Your task to perform on an android device: Search for rayovac triple a on ebay.com, select the first entry, and add it to the cart. Image 0: 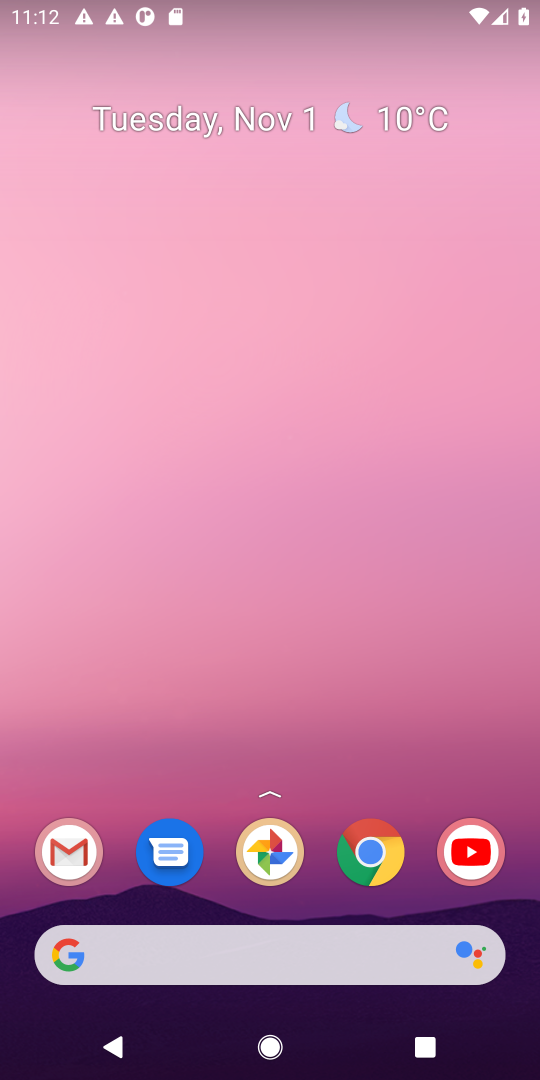
Step 0: press home button
Your task to perform on an android device: Search for rayovac triple a on ebay.com, select the first entry, and add it to the cart. Image 1: 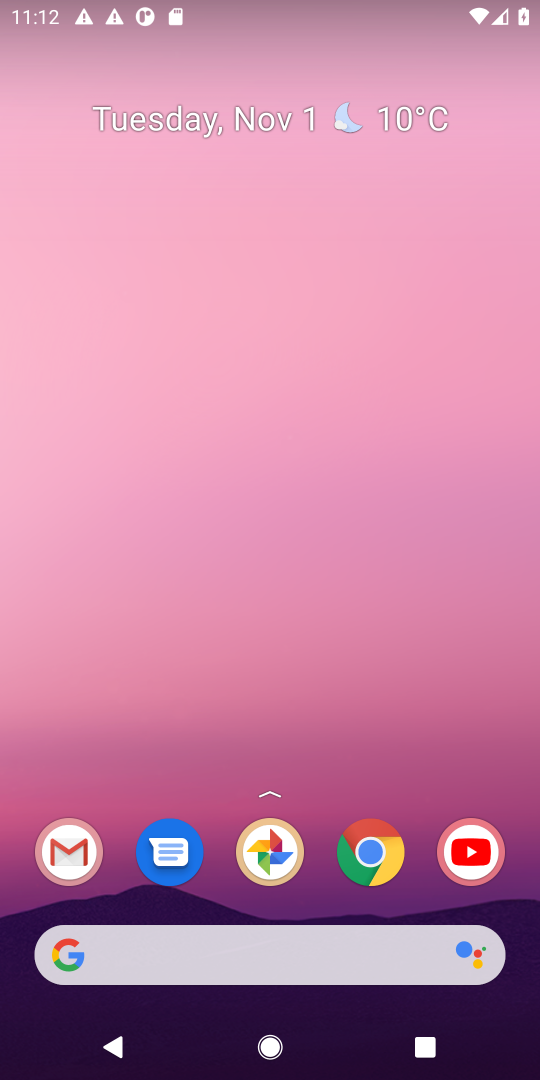
Step 1: click (57, 943)
Your task to perform on an android device: Search for rayovac triple a on ebay.com, select the first entry, and add it to the cart. Image 2: 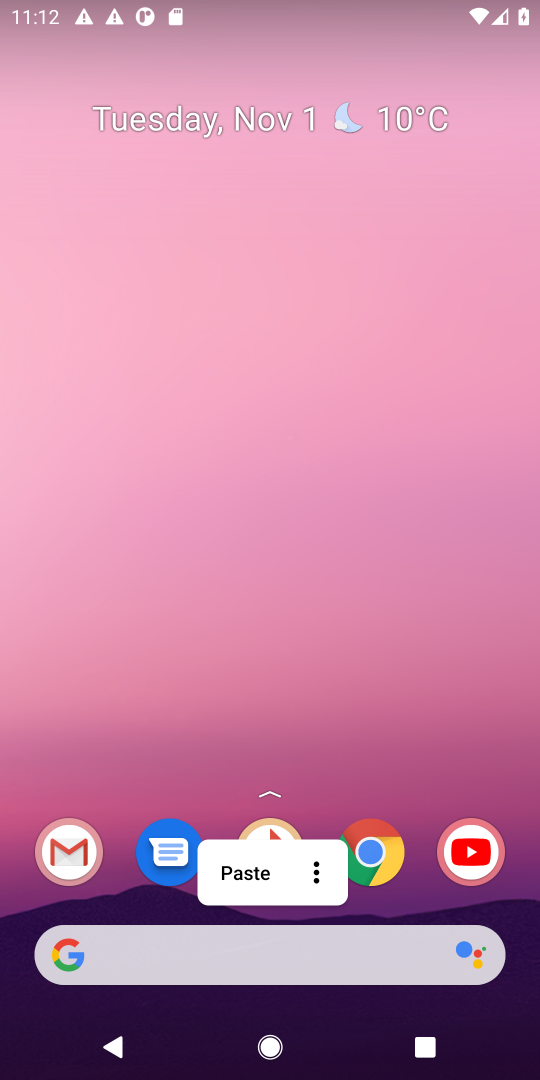
Step 2: click (63, 947)
Your task to perform on an android device: Search for rayovac triple a on ebay.com, select the first entry, and add it to the cart. Image 3: 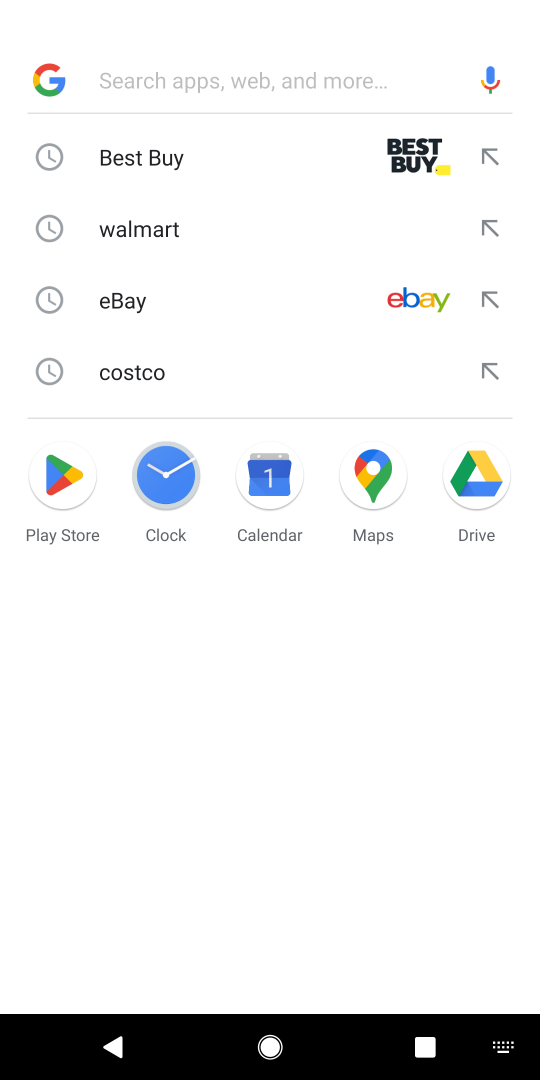
Step 3: click (115, 304)
Your task to perform on an android device: Search for rayovac triple a on ebay.com, select the first entry, and add it to the cart. Image 4: 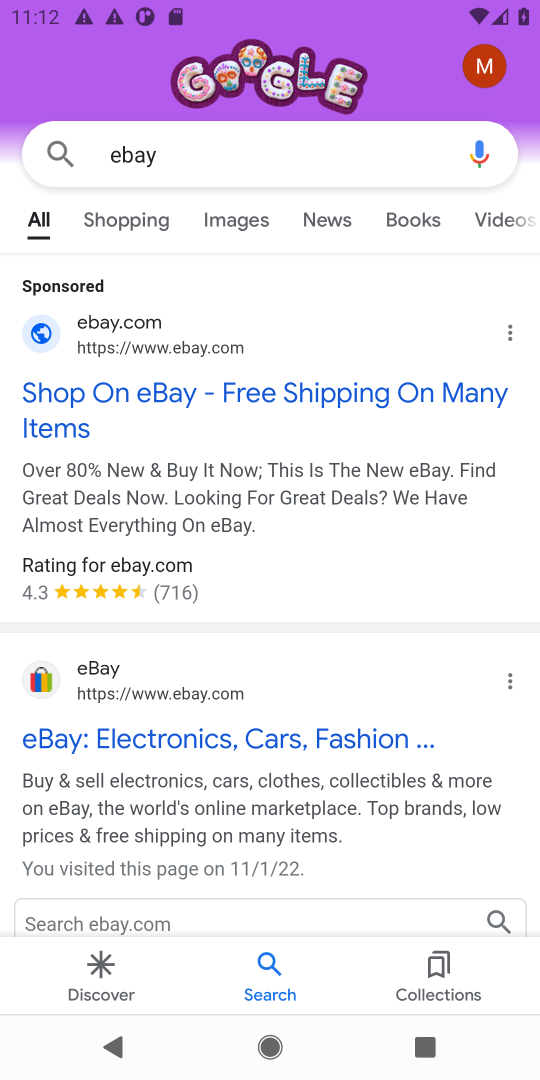
Step 4: click (154, 733)
Your task to perform on an android device: Search for rayovac triple a on ebay.com, select the first entry, and add it to the cart. Image 5: 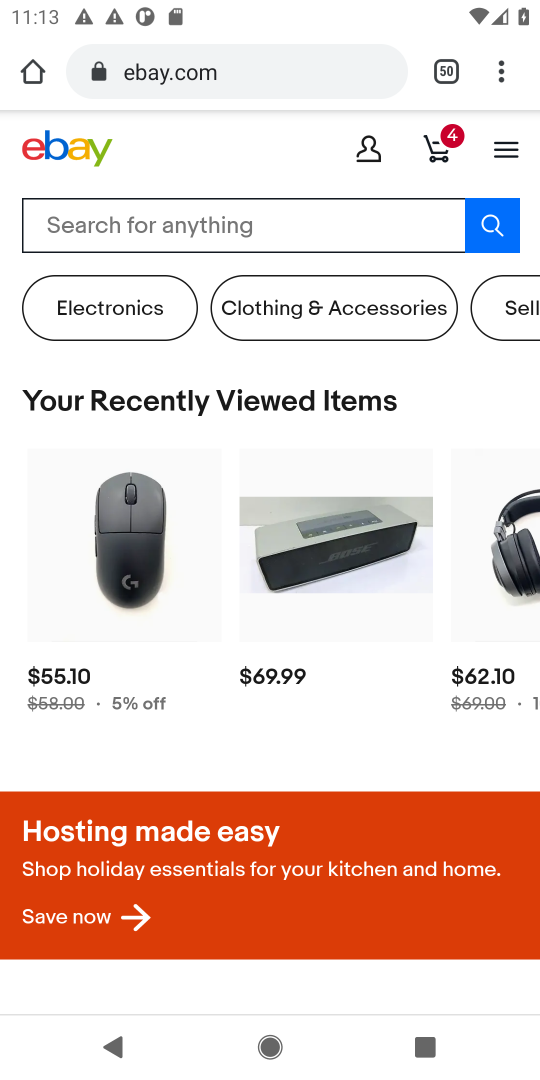
Step 5: click (140, 222)
Your task to perform on an android device: Search for rayovac triple a on ebay.com, select the first entry, and add it to the cart. Image 6: 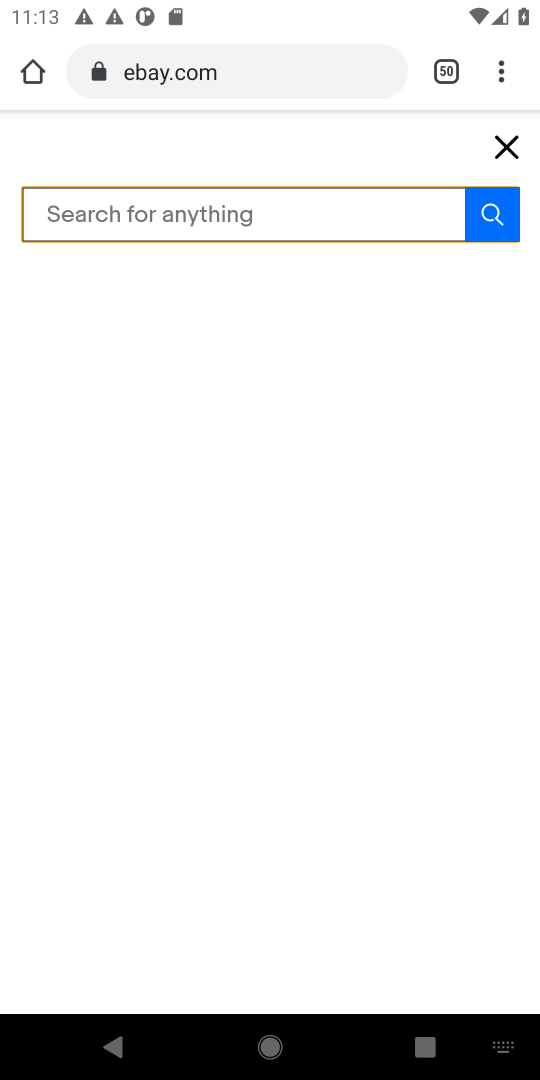
Step 6: type " rayovac triple a"
Your task to perform on an android device: Search for rayovac triple a on ebay.com, select the first entry, and add it to the cart. Image 7: 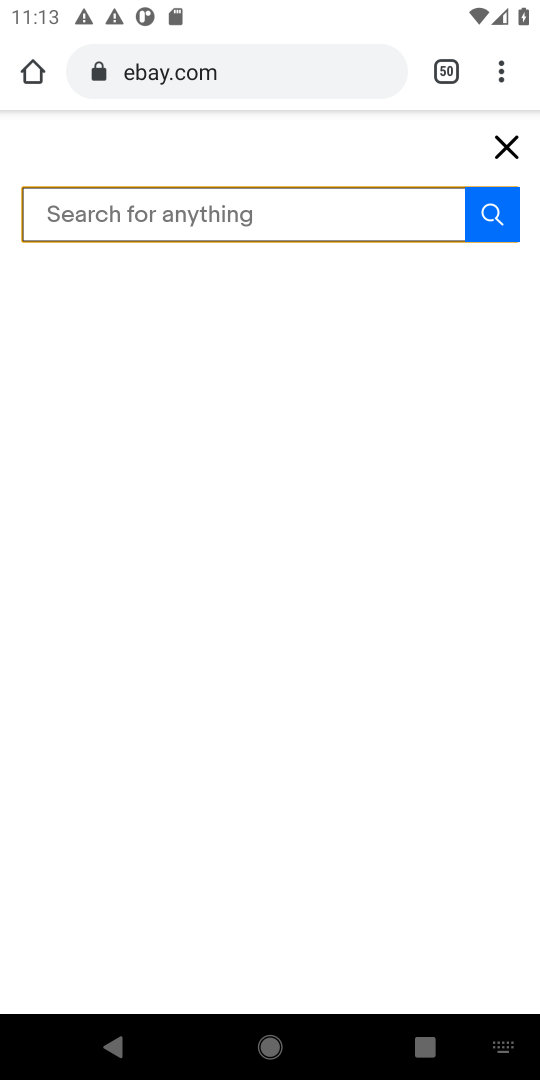
Step 7: click (67, 214)
Your task to perform on an android device: Search for rayovac triple a on ebay.com, select the first entry, and add it to the cart. Image 8: 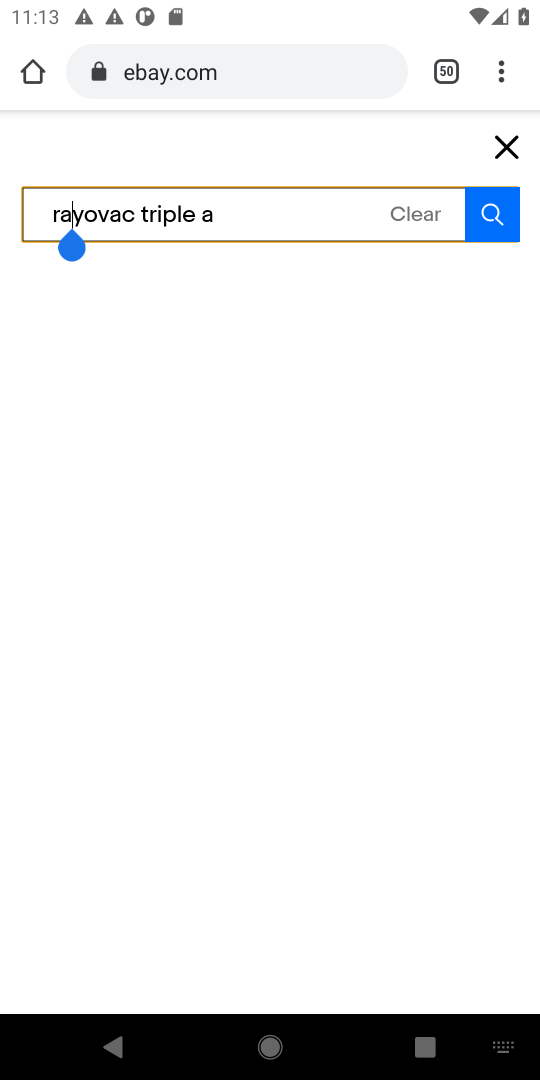
Step 8: press enter
Your task to perform on an android device: Search for rayovac triple a on ebay.com, select the first entry, and add it to the cart. Image 9: 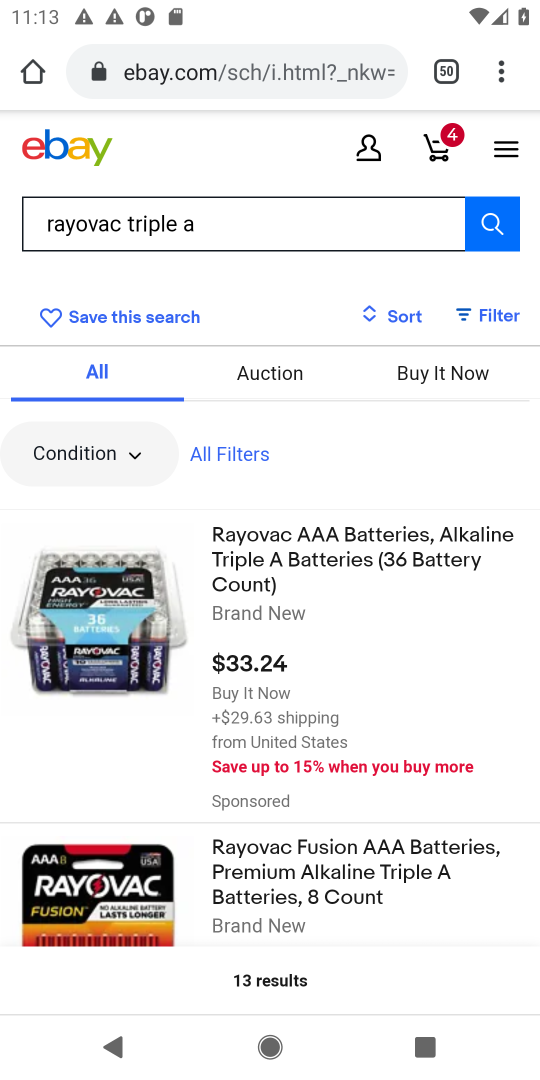
Step 9: click (361, 527)
Your task to perform on an android device: Search for rayovac triple a on ebay.com, select the first entry, and add it to the cart. Image 10: 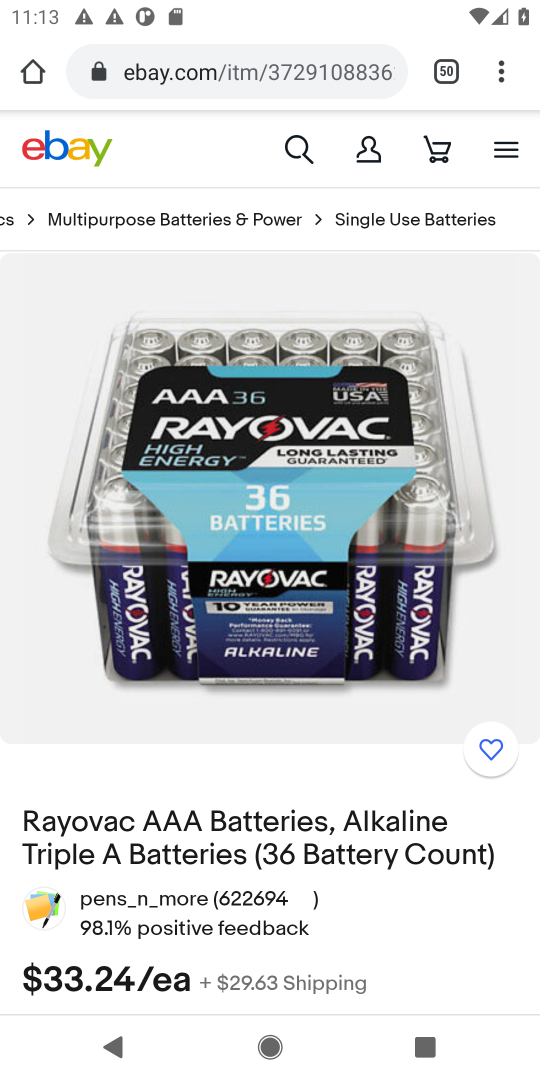
Step 10: drag from (426, 894) to (369, 354)
Your task to perform on an android device: Search for rayovac triple a on ebay.com, select the first entry, and add it to the cart. Image 11: 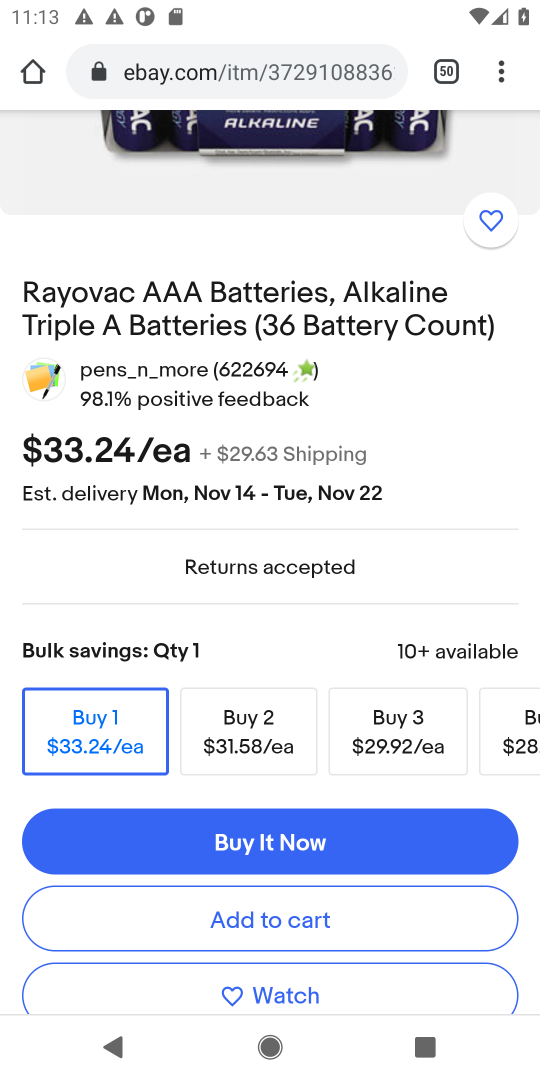
Step 11: click (291, 925)
Your task to perform on an android device: Search for rayovac triple a on ebay.com, select the first entry, and add it to the cart. Image 12: 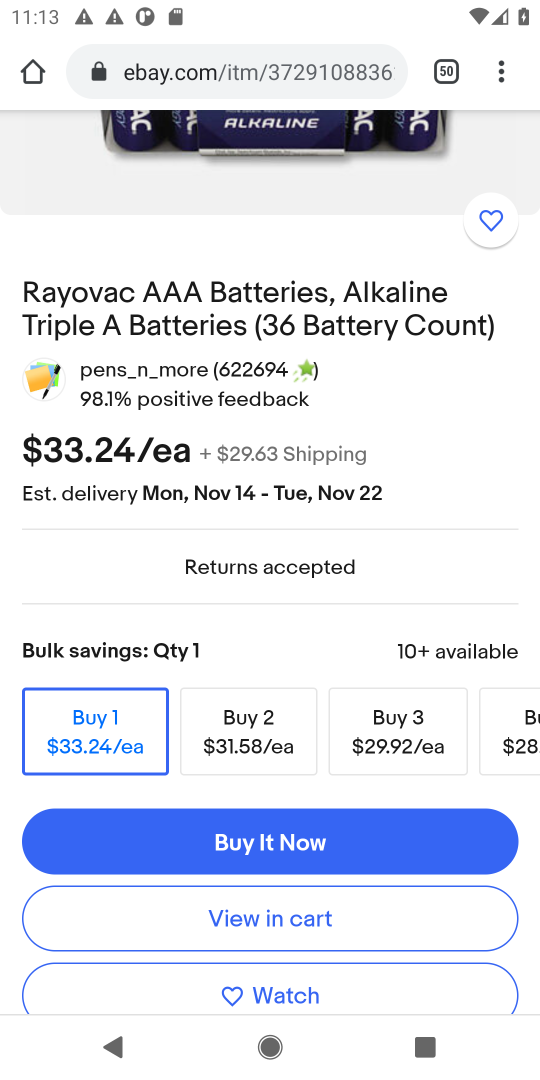
Step 12: task complete